Your task to perform on an android device: delete browsing data in the chrome app Image 0: 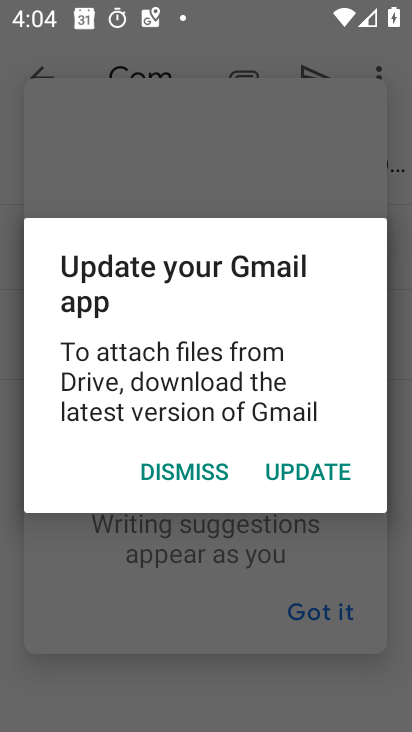
Step 0: press home button
Your task to perform on an android device: delete browsing data in the chrome app Image 1: 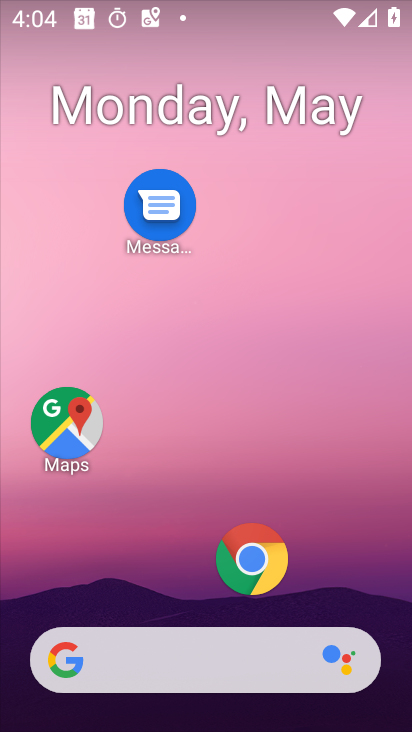
Step 1: click (250, 555)
Your task to perform on an android device: delete browsing data in the chrome app Image 2: 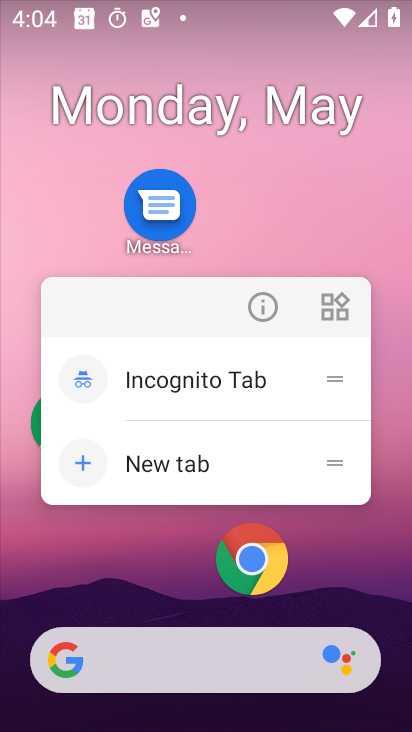
Step 2: click (255, 293)
Your task to perform on an android device: delete browsing data in the chrome app Image 3: 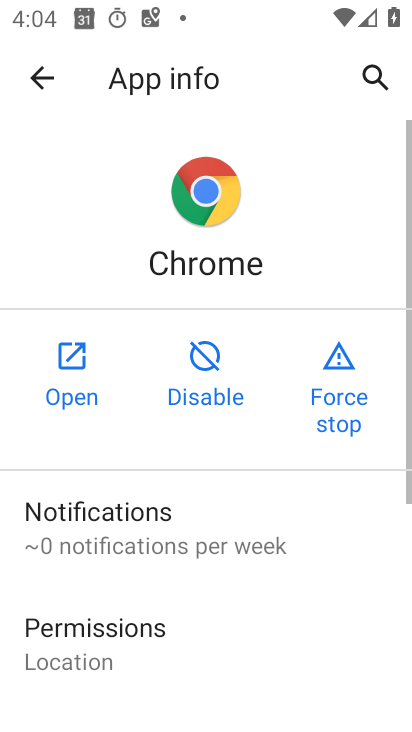
Step 3: click (69, 386)
Your task to perform on an android device: delete browsing data in the chrome app Image 4: 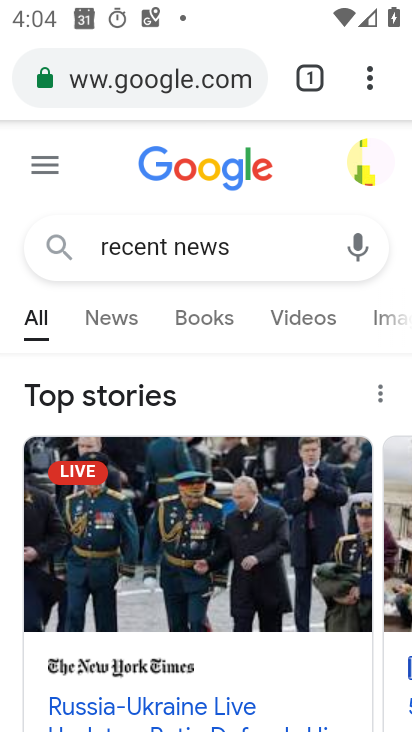
Step 4: click (373, 74)
Your task to perform on an android device: delete browsing data in the chrome app Image 5: 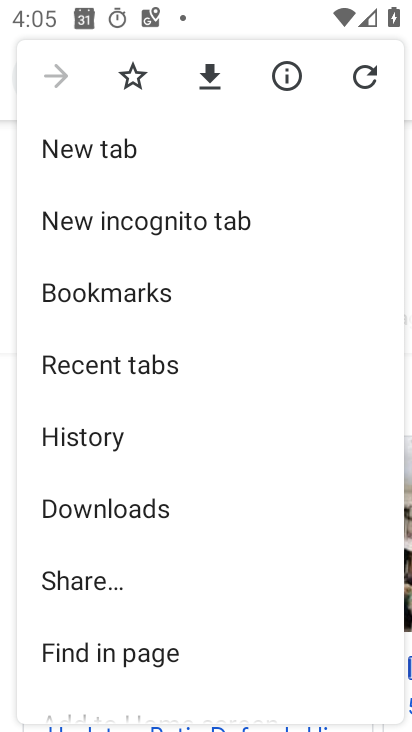
Step 5: click (116, 425)
Your task to perform on an android device: delete browsing data in the chrome app Image 6: 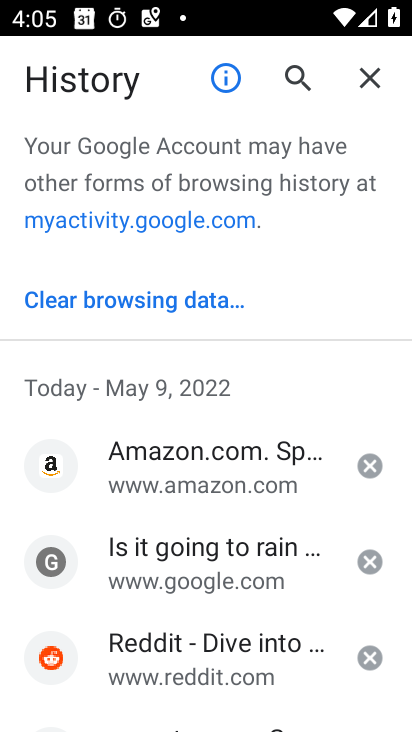
Step 6: click (165, 293)
Your task to perform on an android device: delete browsing data in the chrome app Image 7: 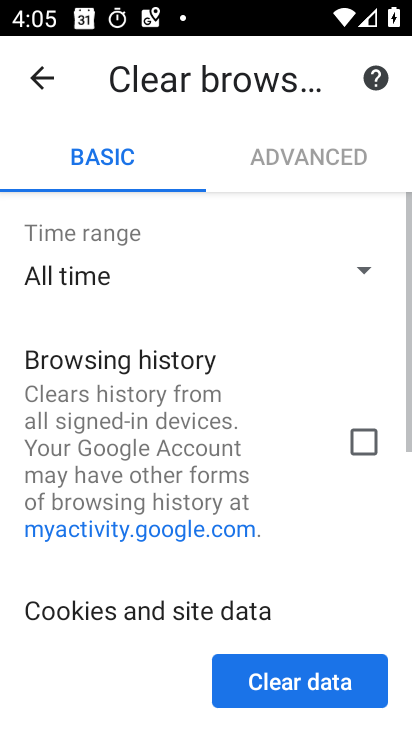
Step 7: click (319, 693)
Your task to perform on an android device: delete browsing data in the chrome app Image 8: 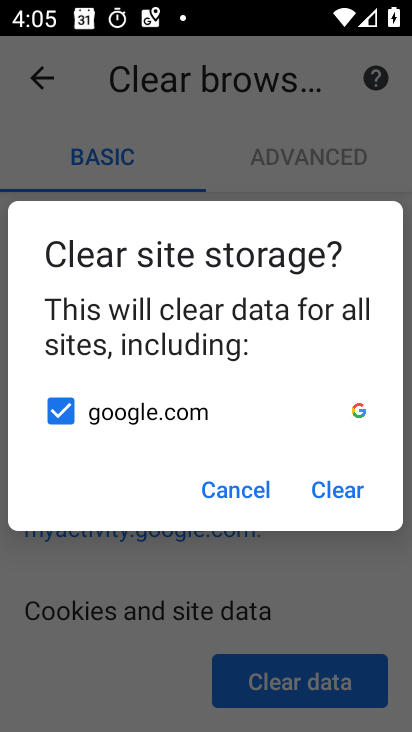
Step 8: click (318, 498)
Your task to perform on an android device: delete browsing data in the chrome app Image 9: 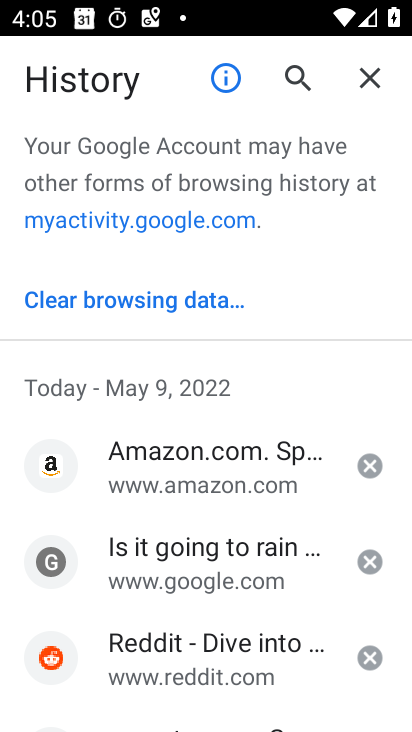
Step 9: task complete